Your task to perform on an android device: Search for pizza restaurants on Maps Image 0: 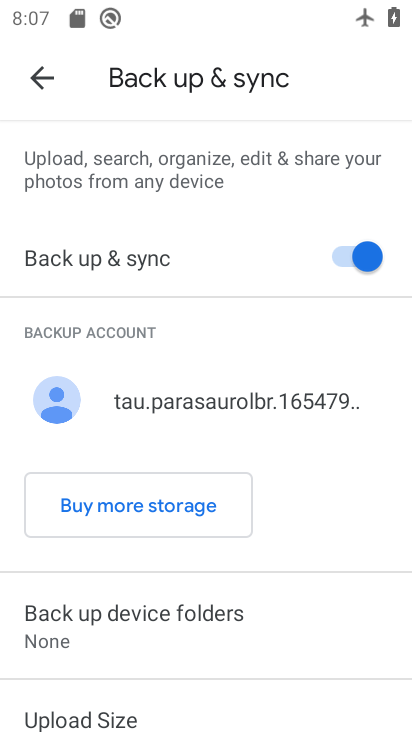
Step 0: press home button
Your task to perform on an android device: Search for pizza restaurants on Maps Image 1: 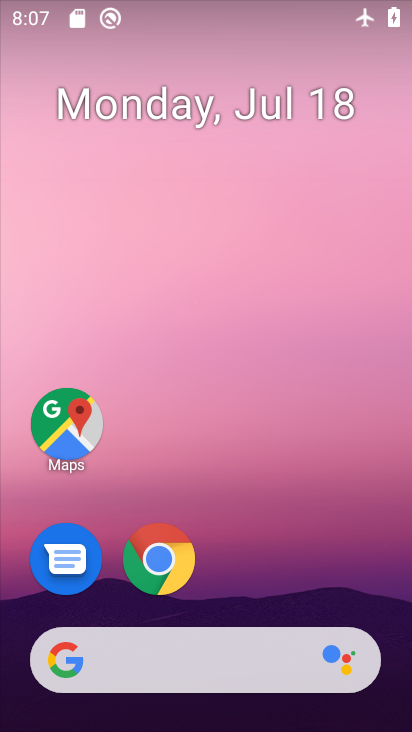
Step 1: drag from (345, 563) to (339, 134)
Your task to perform on an android device: Search for pizza restaurants on Maps Image 2: 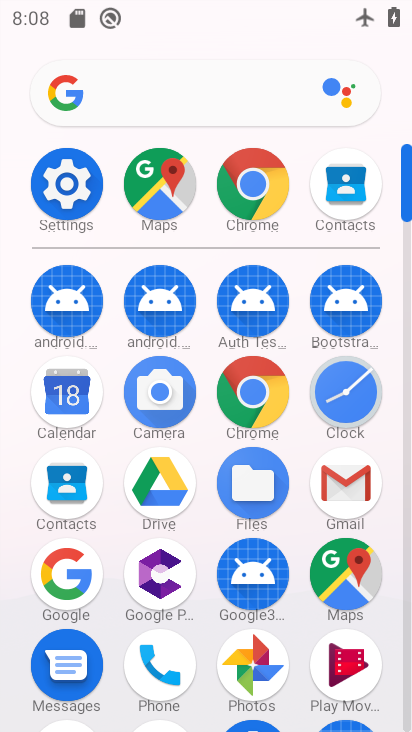
Step 2: click (368, 565)
Your task to perform on an android device: Search for pizza restaurants on Maps Image 3: 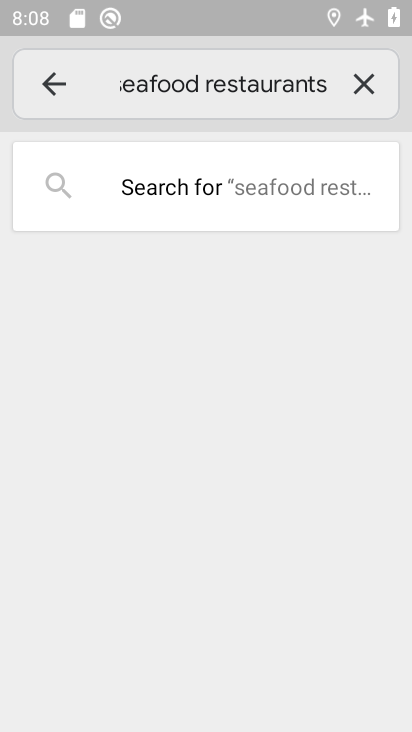
Step 3: press back button
Your task to perform on an android device: Search for pizza restaurants on Maps Image 4: 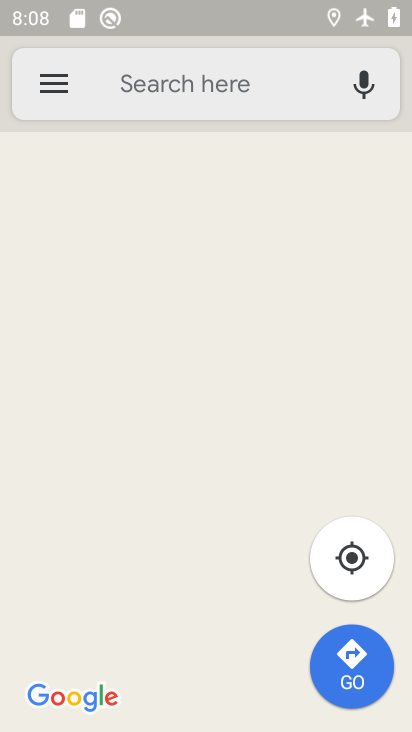
Step 4: click (262, 83)
Your task to perform on an android device: Search for pizza restaurants on Maps Image 5: 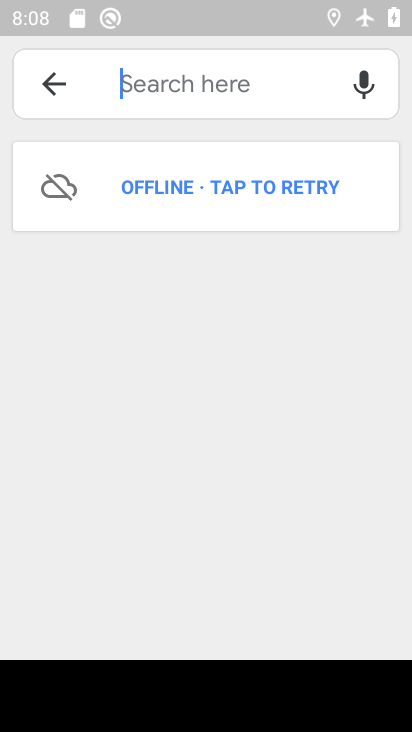
Step 5: type "pizza restaurants"
Your task to perform on an android device: Search for pizza restaurants on Maps Image 6: 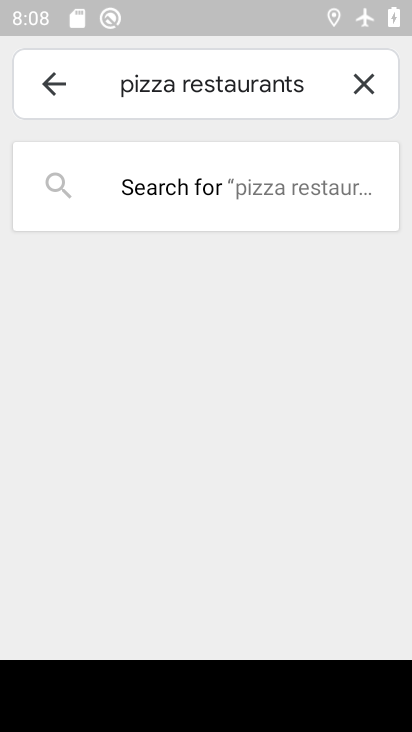
Step 6: task complete